Your task to perform on an android device: Turn off the flashlight Image 0: 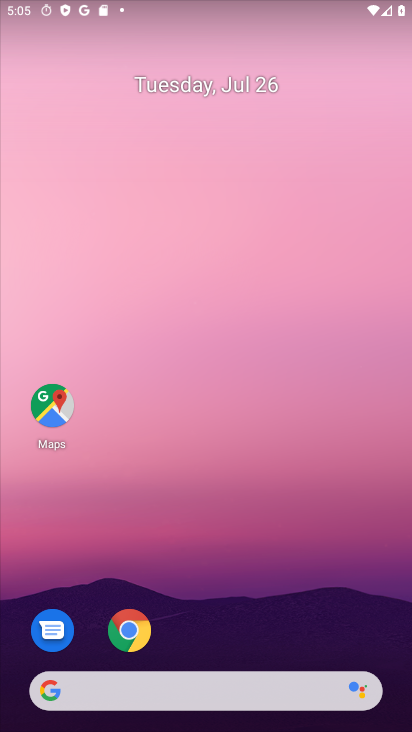
Step 0: drag from (328, 645) to (244, 48)
Your task to perform on an android device: Turn off the flashlight Image 1: 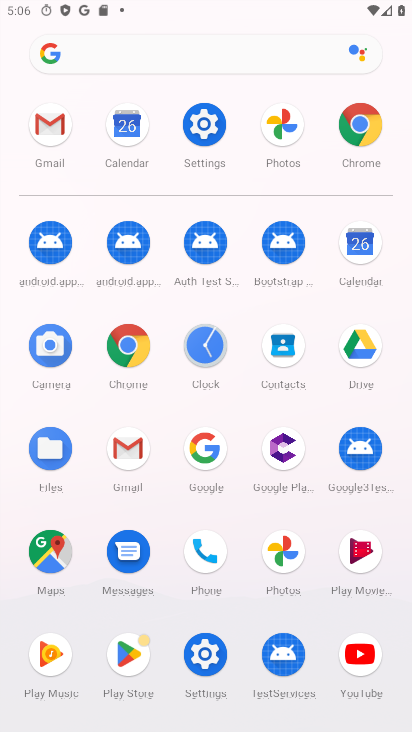
Step 1: click (209, 119)
Your task to perform on an android device: Turn off the flashlight Image 2: 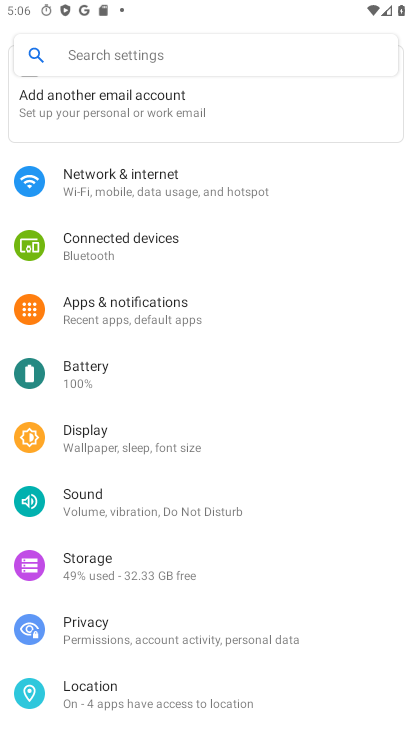
Step 2: click (94, 438)
Your task to perform on an android device: Turn off the flashlight Image 3: 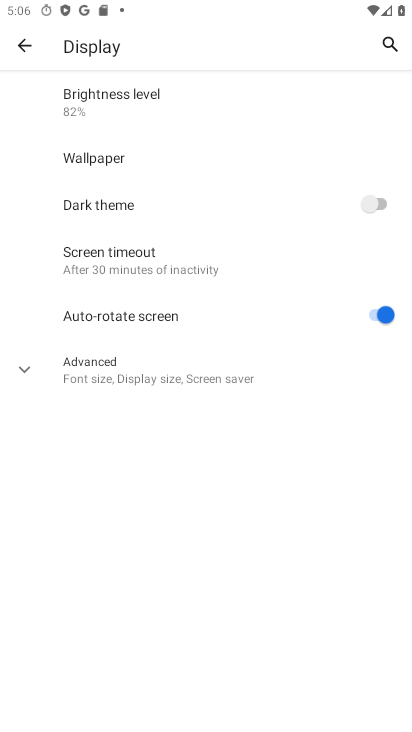
Step 3: click (155, 269)
Your task to perform on an android device: Turn off the flashlight Image 4: 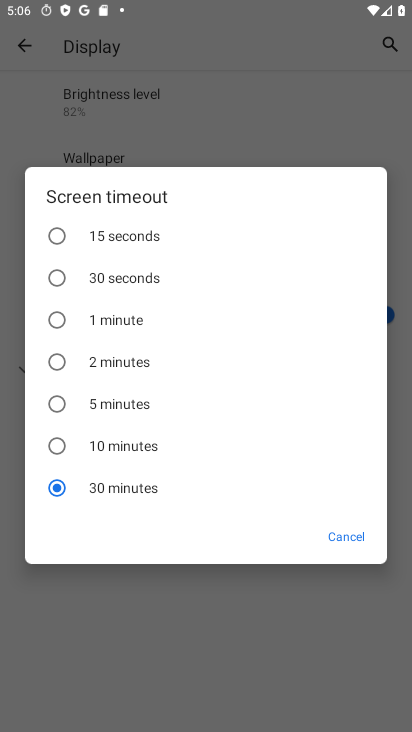
Step 4: task complete